Your task to perform on an android device: toggle translation in the chrome app Image 0: 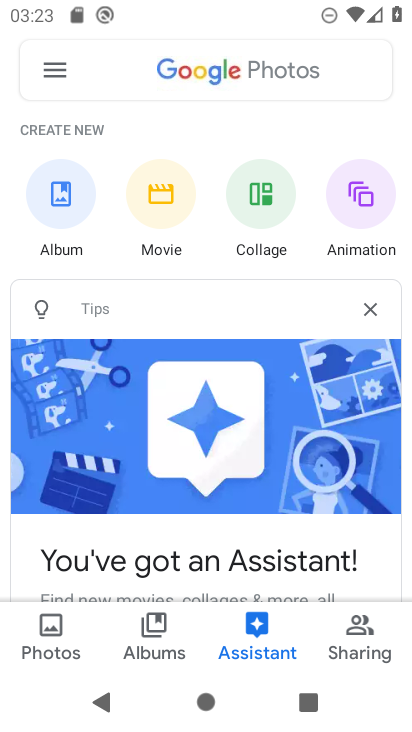
Step 0: press home button
Your task to perform on an android device: toggle translation in the chrome app Image 1: 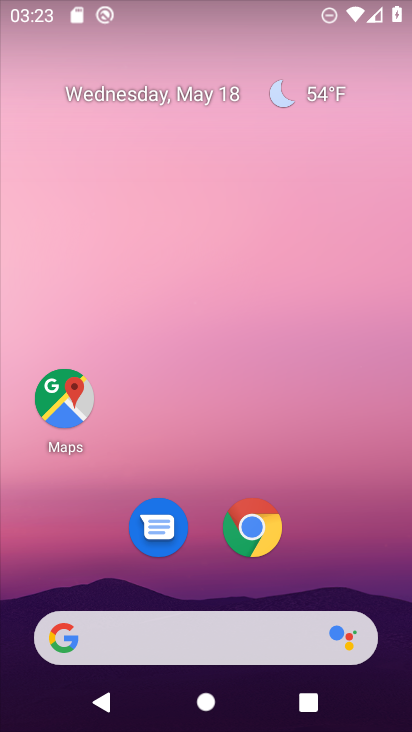
Step 1: drag from (190, 604) to (118, 107)
Your task to perform on an android device: toggle translation in the chrome app Image 2: 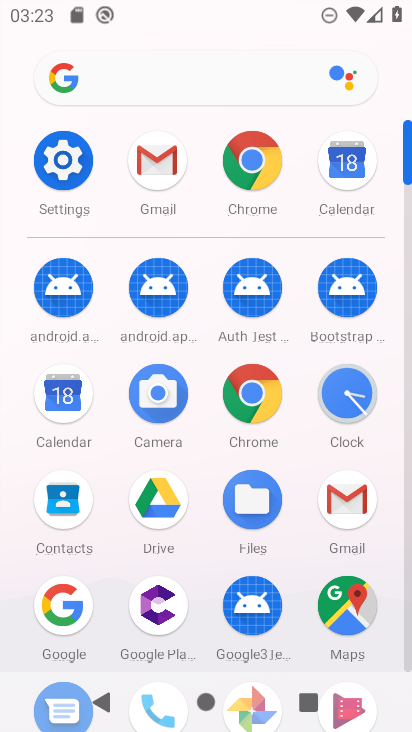
Step 2: click (243, 151)
Your task to perform on an android device: toggle translation in the chrome app Image 3: 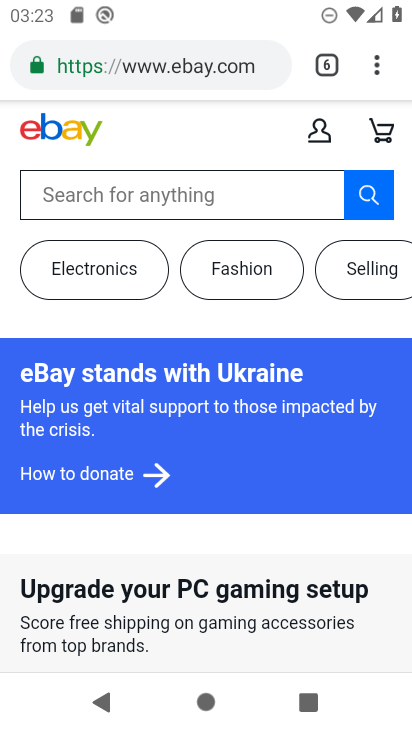
Step 3: click (378, 65)
Your task to perform on an android device: toggle translation in the chrome app Image 4: 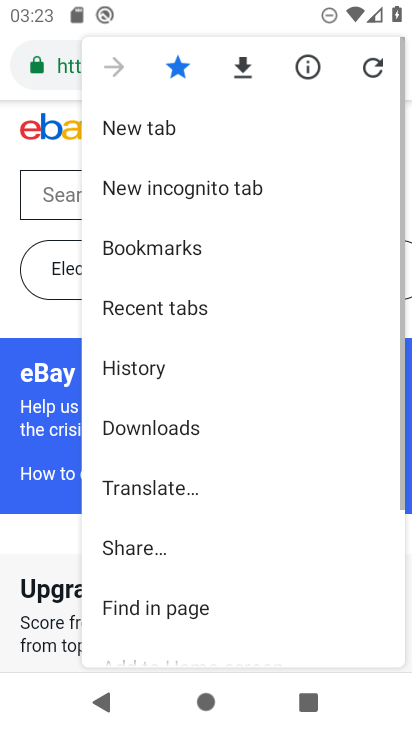
Step 4: drag from (164, 581) to (164, 136)
Your task to perform on an android device: toggle translation in the chrome app Image 5: 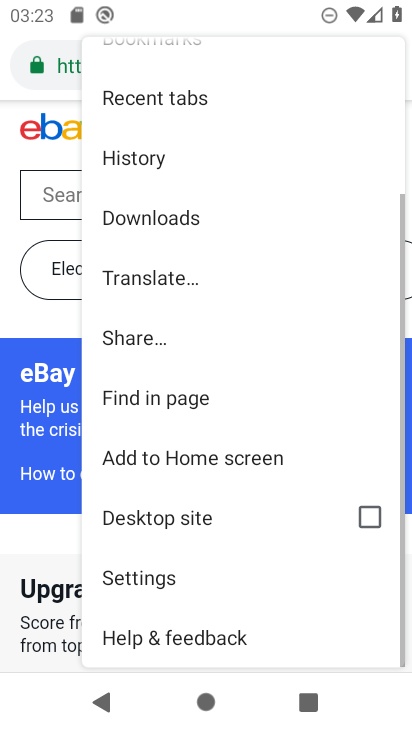
Step 5: click (162, 578)
Your task to perform on an android device: toggle translation in the chrome app Image 6: 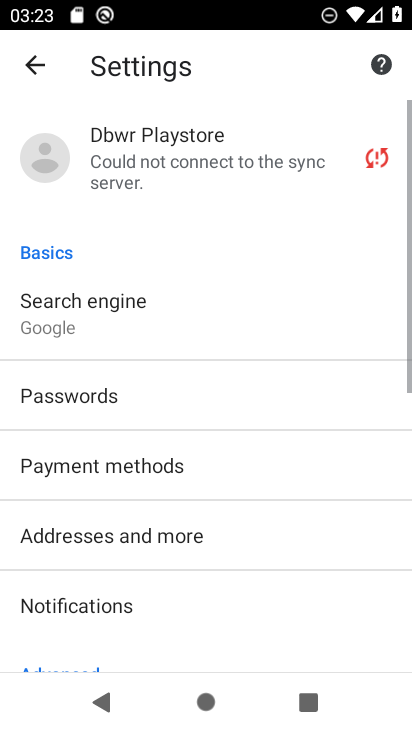
Step 6: drag from (164, 573) to (169, 142)
Your task to perform on an android device: toggle translation in the chrome app Image 7: 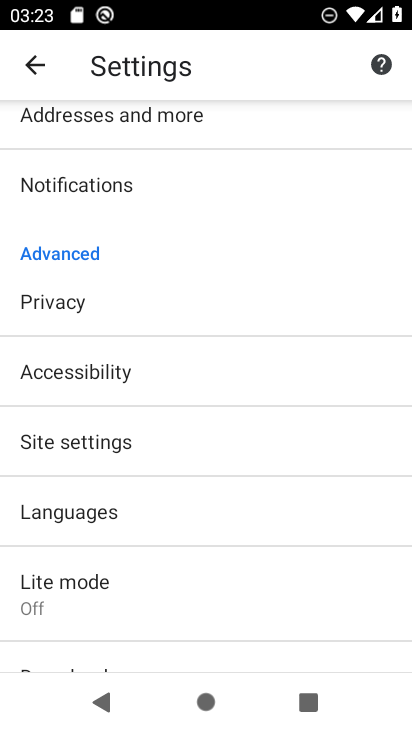
Step 7: click (109, 495)
Your task to perform on an android device: toggle translation in the chrome app Image 8: 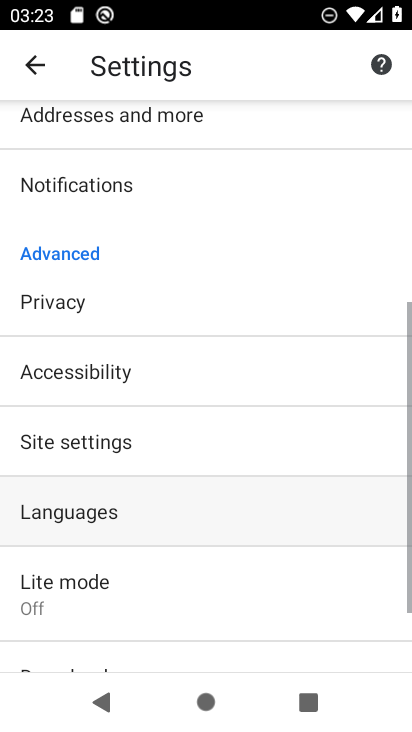
Step 8: drag from (109, 495) to (111, 141)
Your task to perform on an android device: toggle translation in the chrome app Image 9: 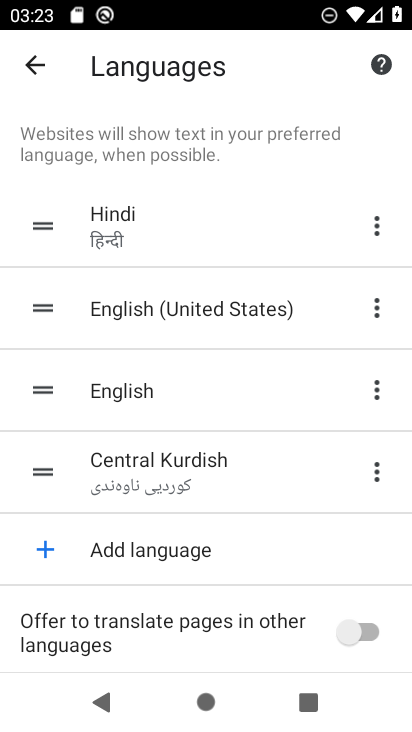
Step 9: click (366, 636)
Your task to perform on an android device: toggle translation in the chrome app Image 10: 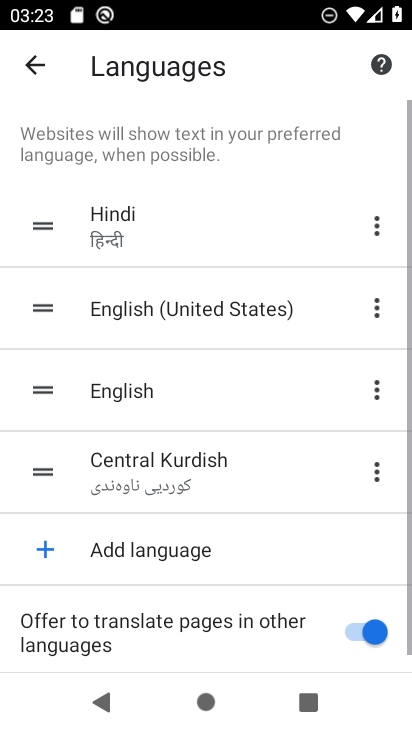
Step 10: task complete